Your task to perform on an android device: open app "Adobe Express: Graphic Design" Image 0: 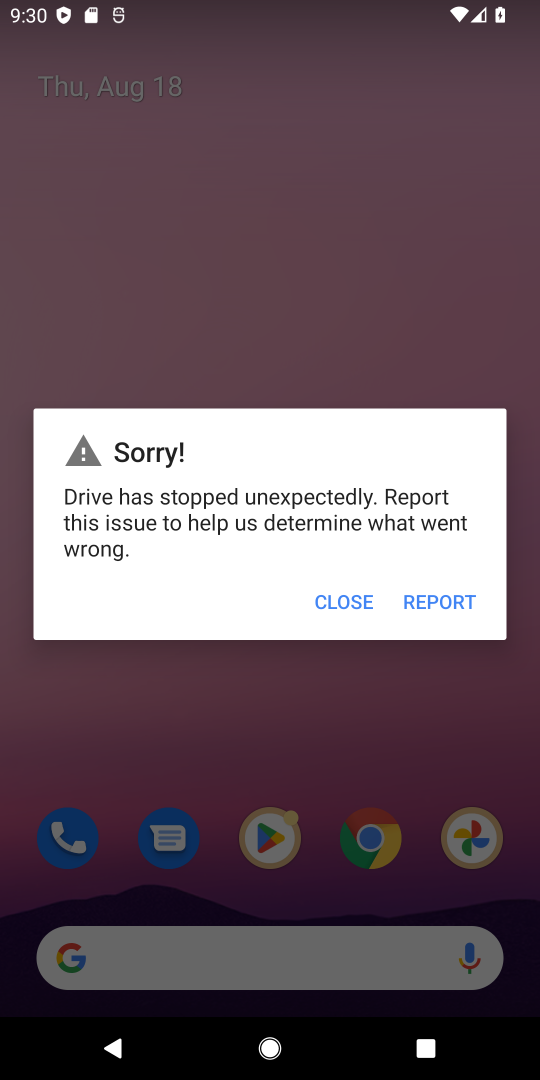
Step 0: click (367, 601)
Your task to perform on an android device: open app "Adobe Express: Graphic Design" Image 1: 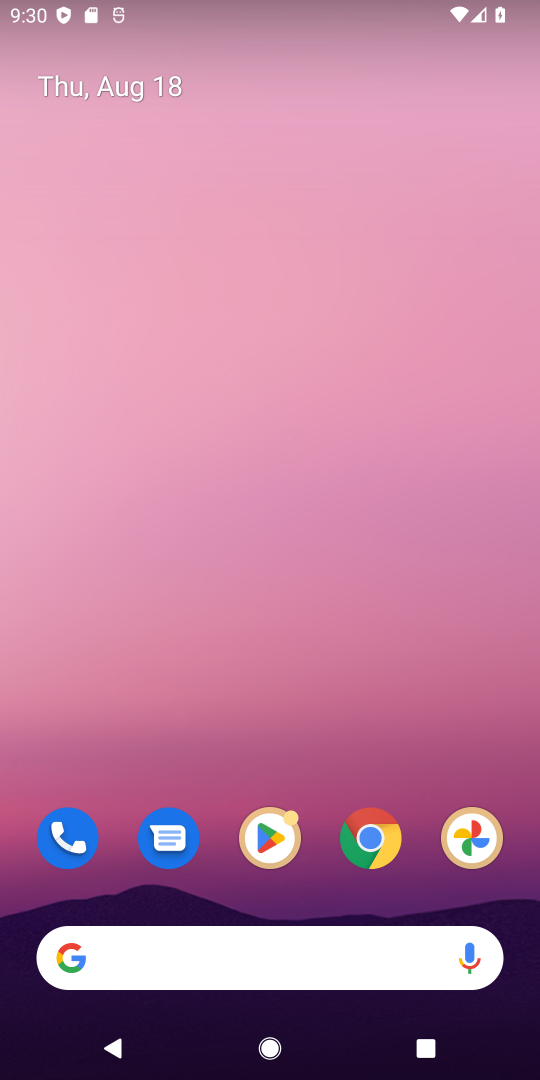
Step 1: click (277, 850)
Your task to perform on an android device: open app "Adobe Express: Graphic Design" Image 2: 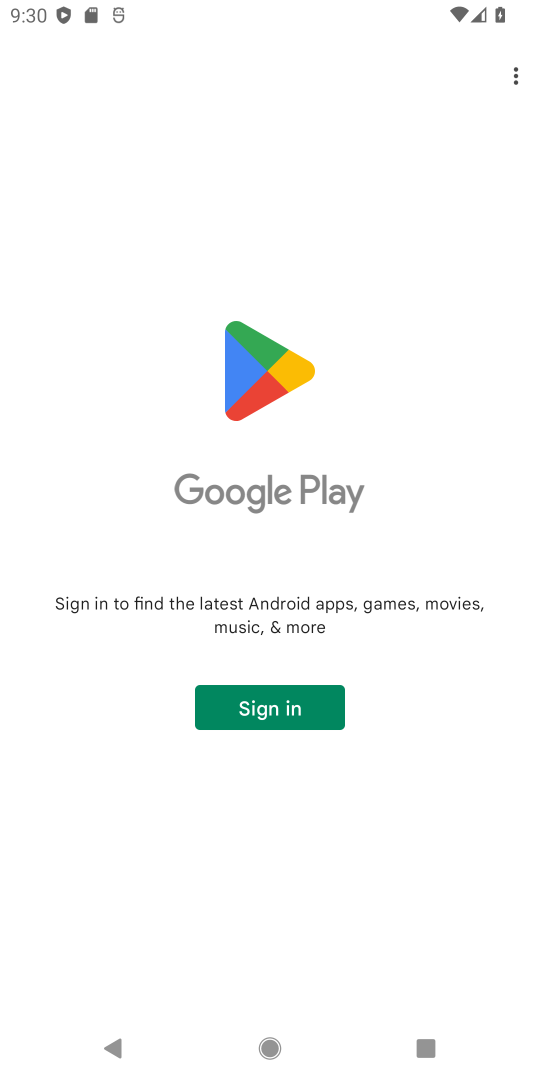
Step 2: task complete